Your task to perform on an android device: find photos in the google photos app Image 0: 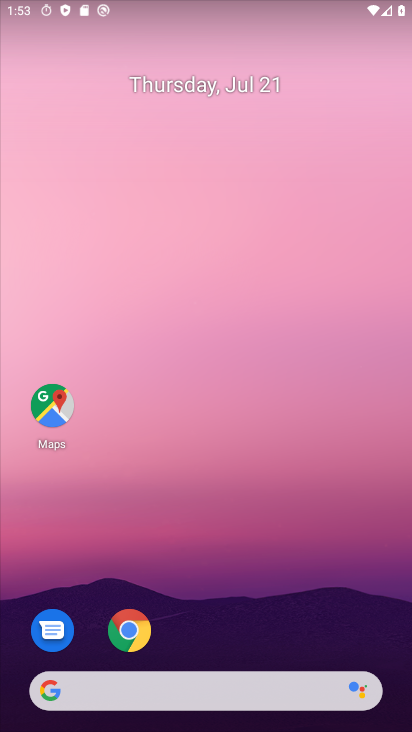
Step 0: drag from (203, 619) to (196, 60)
Your task to perform on an android device: find photos in the google photos app Image 1: 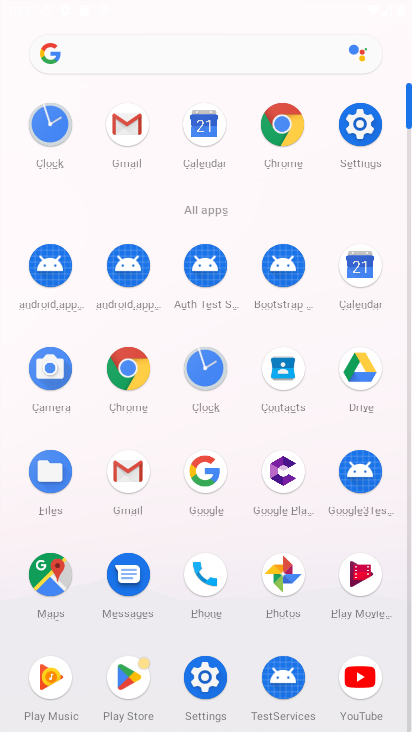
Step 1: click (287, 571)
Your task to perform on an android device: find photos in the google photos app Image 2: 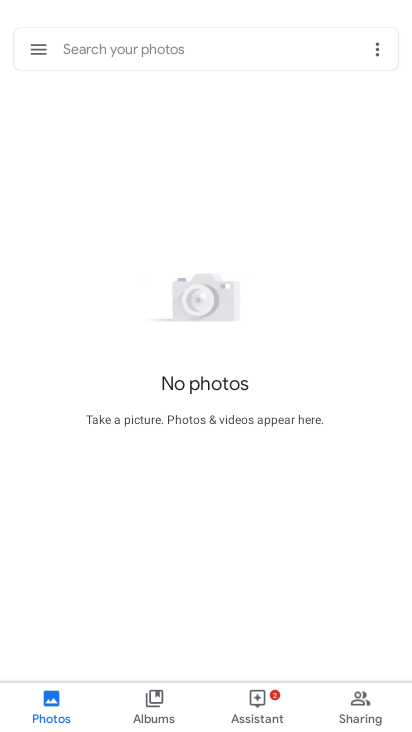
Step 2: task complete